Your task to perform on an android device: turn off sleep mode Image 0: 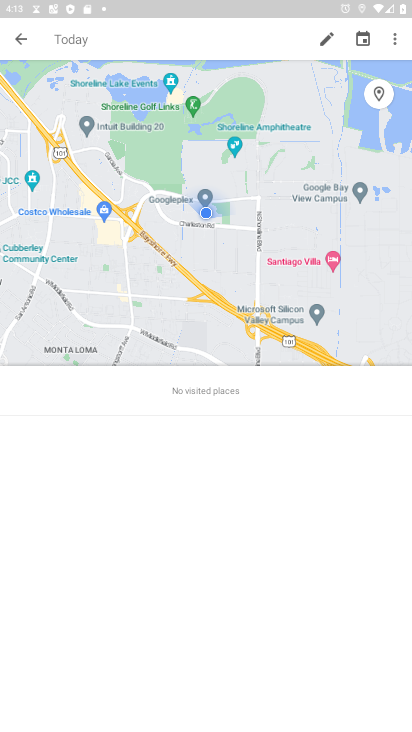
Step 0: press home button
Your task to perform on an android device: turn off sleep mode Image 1: 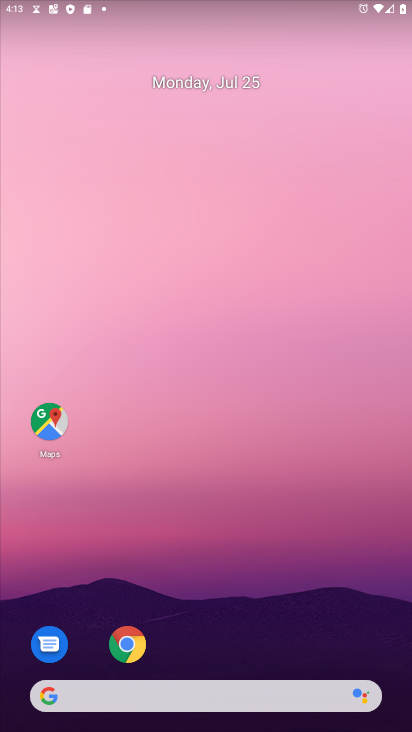
Step 1: drag from (261, 571) to (170, 21)
Your task to perform on an android device: turn off sleep mode Image 2: 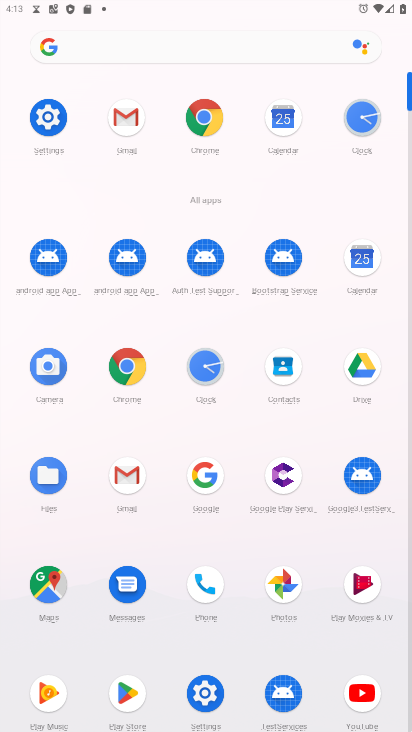
Step 2: click (48, 118)
Your task to perform on an android device: turn off sleep mode Image 3: 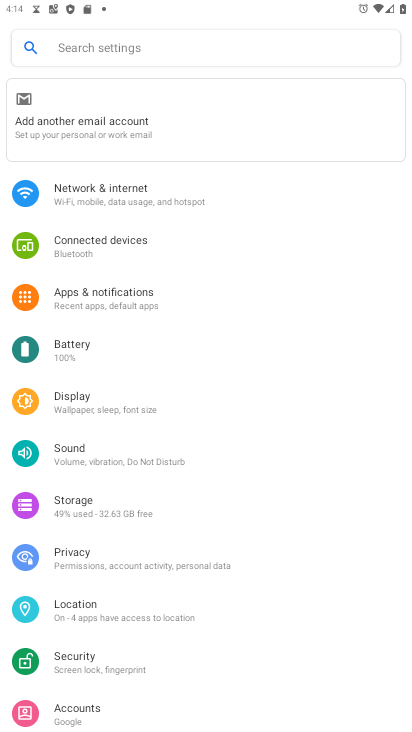
Step 3: click (97, 408)
Your task to perform on an android device: turn off sleep mode Image 4: 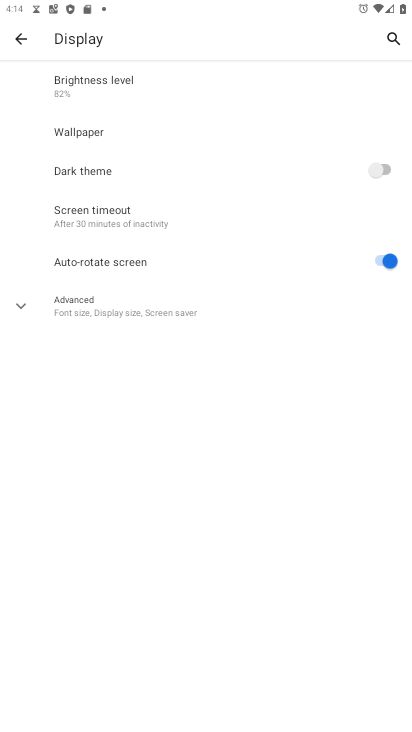
Step 4: click (22, 304)
Your task to perform on an android device: turn off sleep mode Image 5: 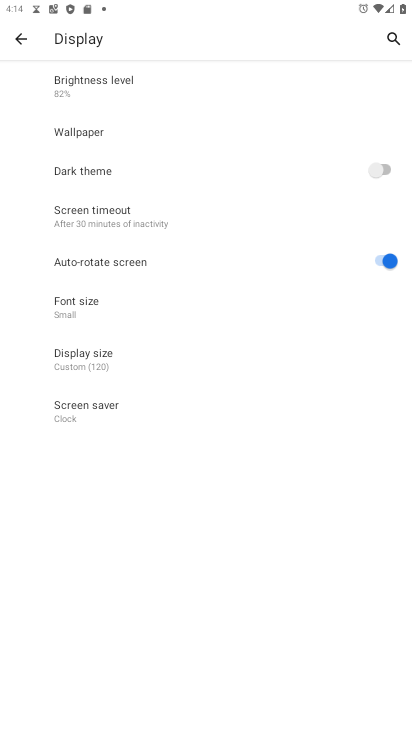
Step 5: task complete